Your task to perform on an android device: Open sound settings Image 0: 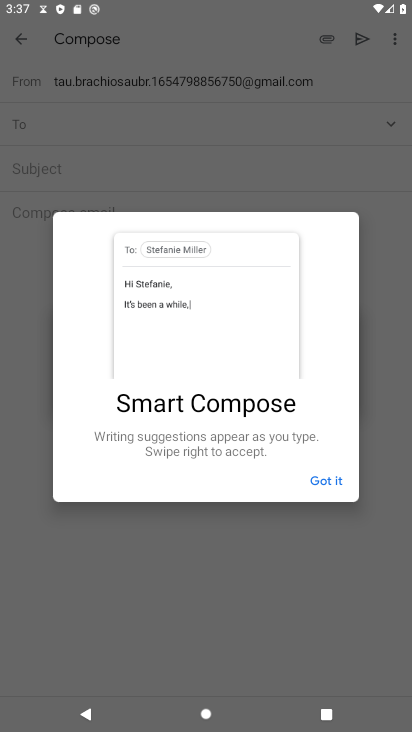
Step 0: press home button
Your task to perform on an android device: Open sound settings Image 1: 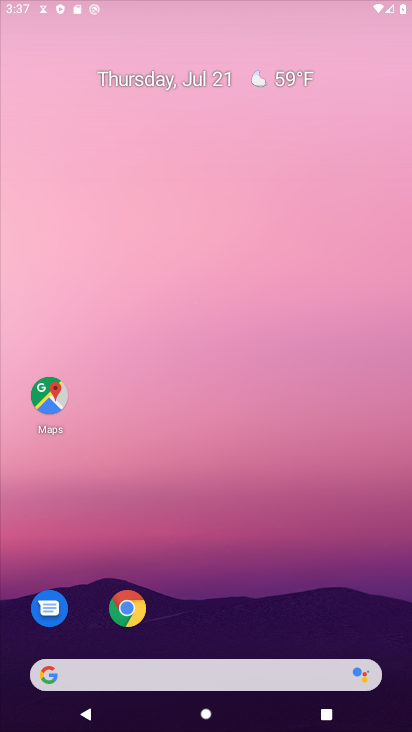
Step 1: drag from (228, 667) to (293, 63)
Your task to perform on an android device: Open sound settings Image 2: 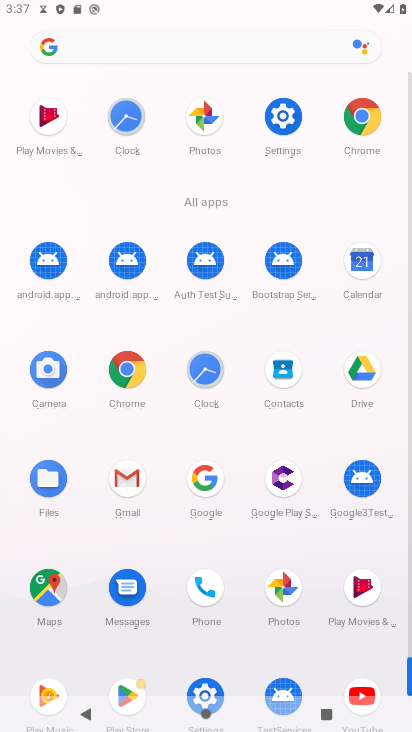
Step 2: click (284, 110)
Your task to perform on an android device: Open sound settings Image 3: 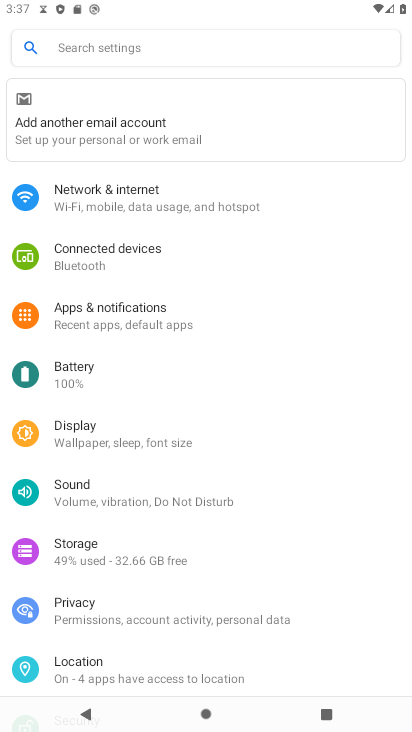
Step 3: click (96, 494)
Your task to perform on an android device: Open sound settings Image 4: 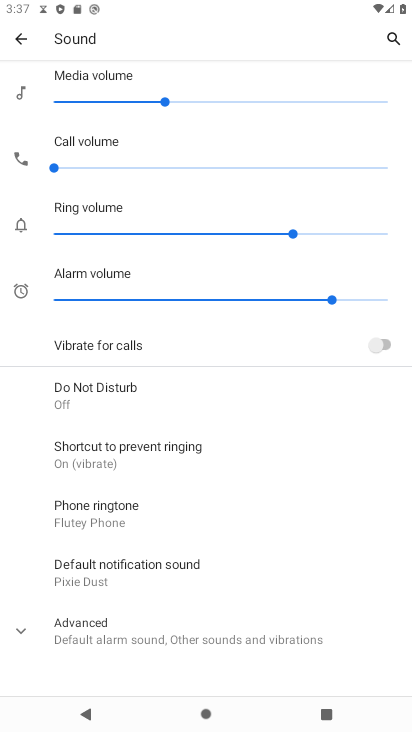
Step 4: task complete